Your task to perform on an android device: open app "Facebook Lite" (install if not already installed) and go to login screen Image 0: 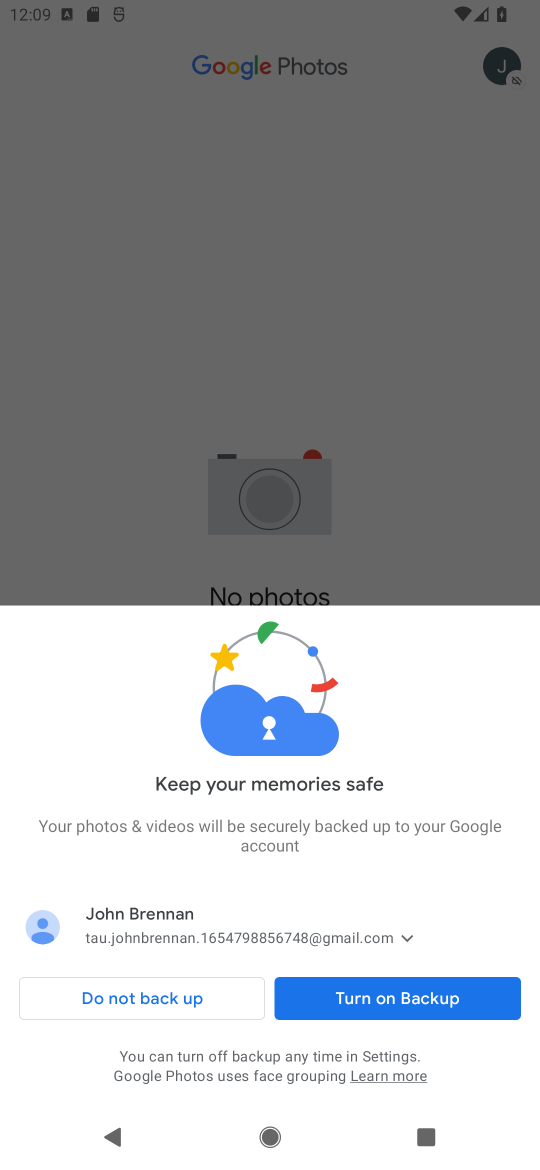
Step 0: press home button
Your task to perform on an android device: open app "Facebook Lite" (install if not already installed) and go to login screen Image 1: 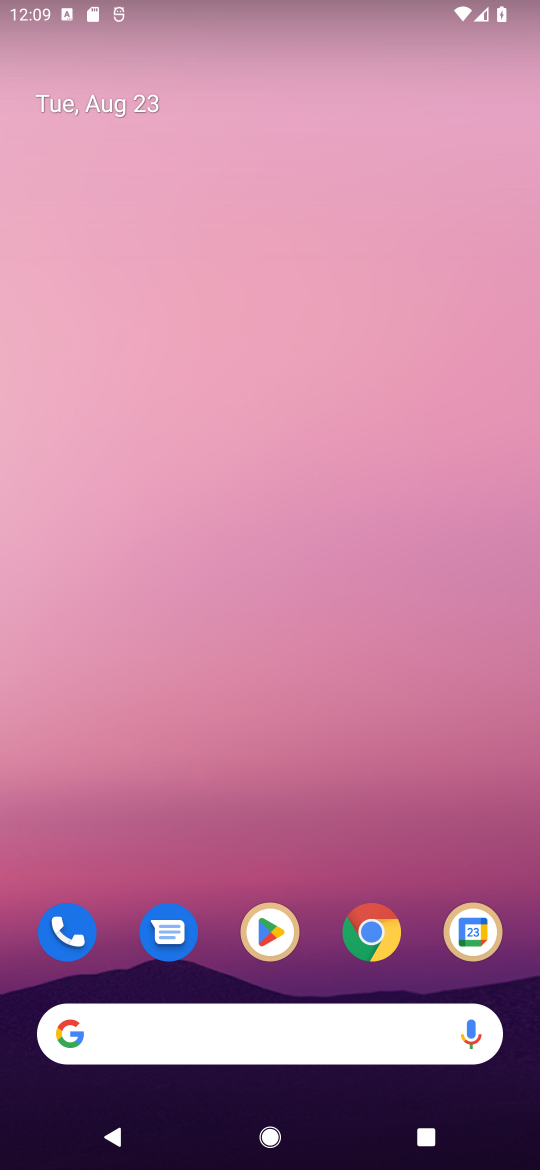
Step 1: click (272, 920)
Your task to perform on an android device: open app "Facebook Lite" (install if not already installed) and go to login screen Image 2: 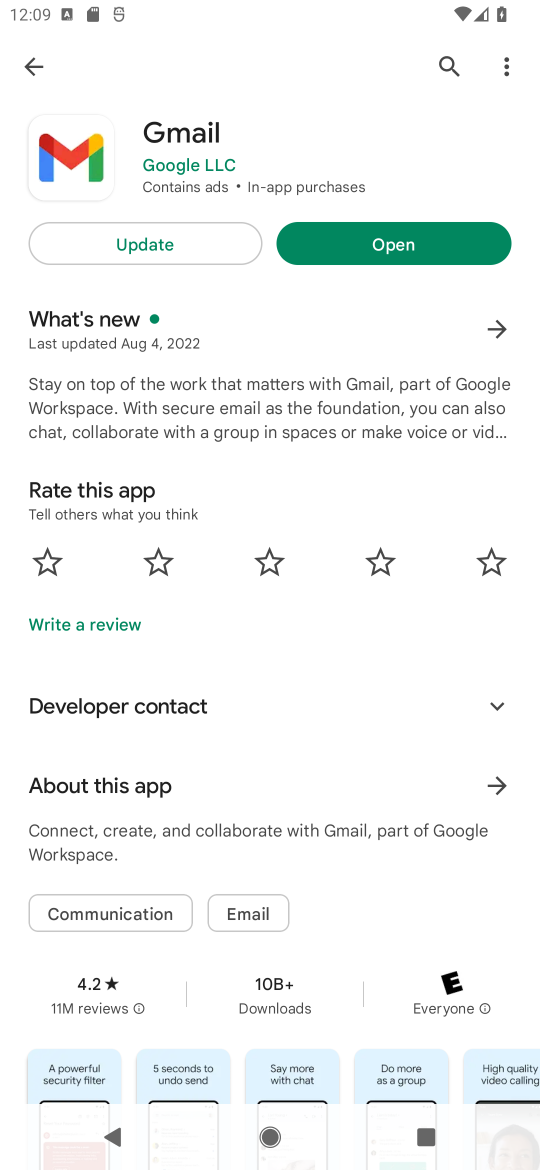
Step 2: click (444, 68)
Your task to perform on an android device: open app "Facebook Lite" (install if not already installed) and go to login screen Image 3: 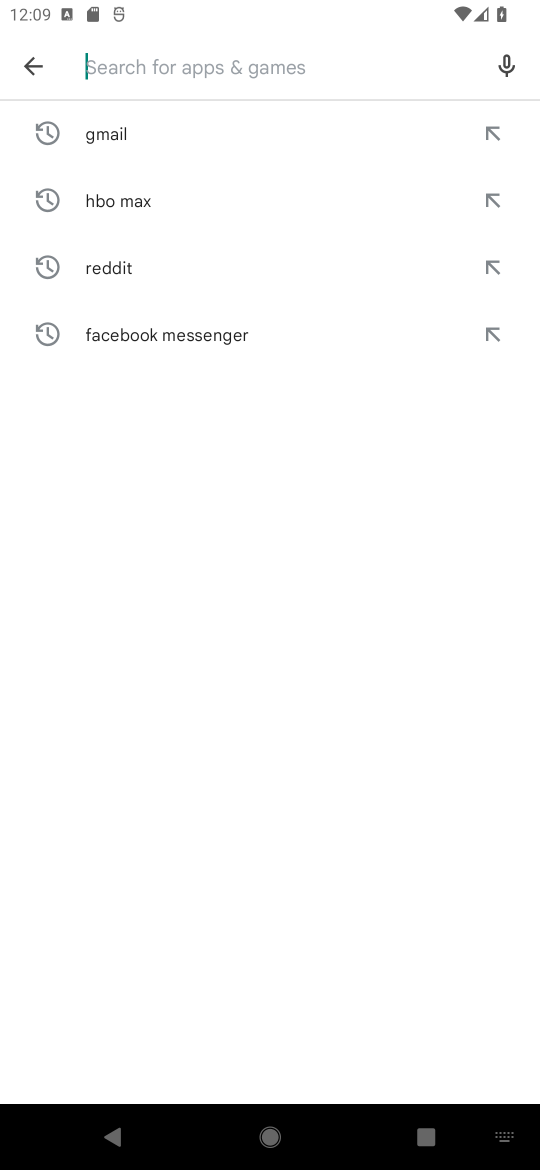
Step 3: click (214, 70)
Your task to perform on an android device: open app "Facebook Lite" (install if not already installed) and go to login screen Image 4: 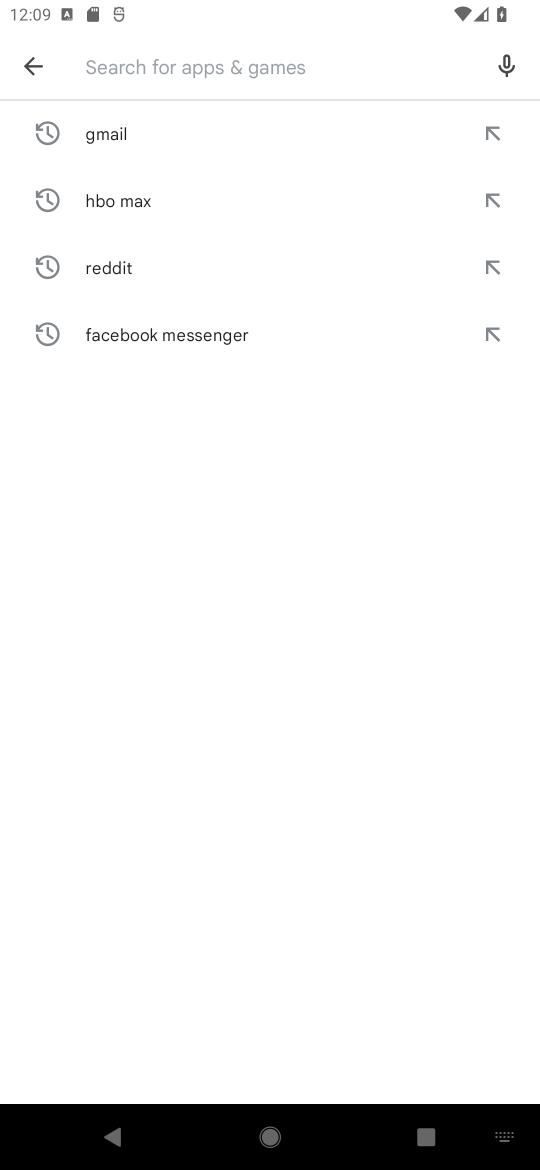
Step 4: type "Facebook Lite"
Your task to perform on an android device: open app "Facebook Lite" (install if not already installed) and go to login screen Image 5: 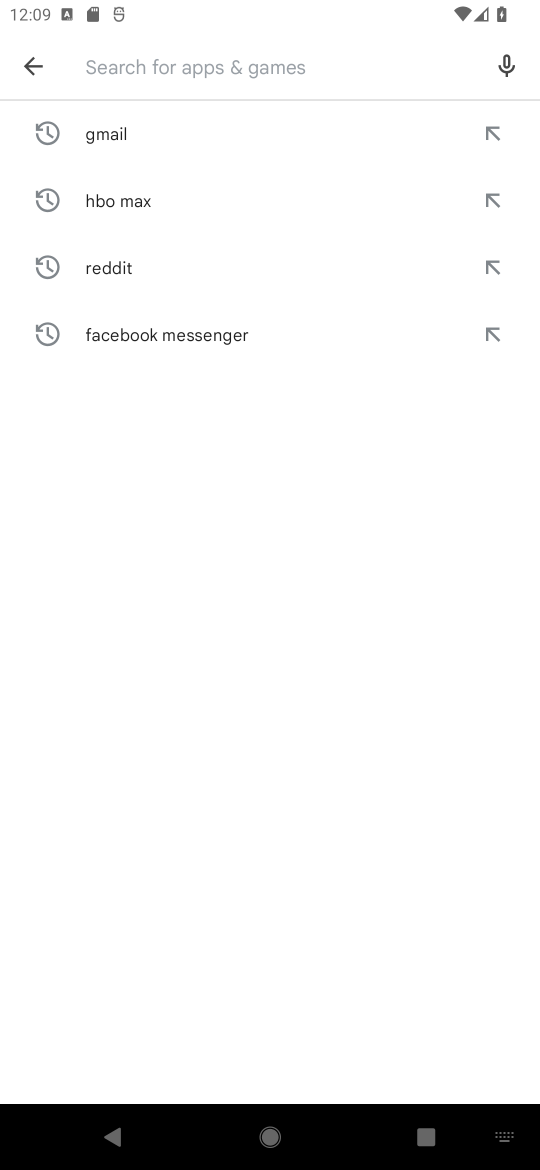
Step 5: click (246, 727)
Your task to perform on an android device: open app "Facebook Lite" (install if not already installed) and go to login screen Image 6: 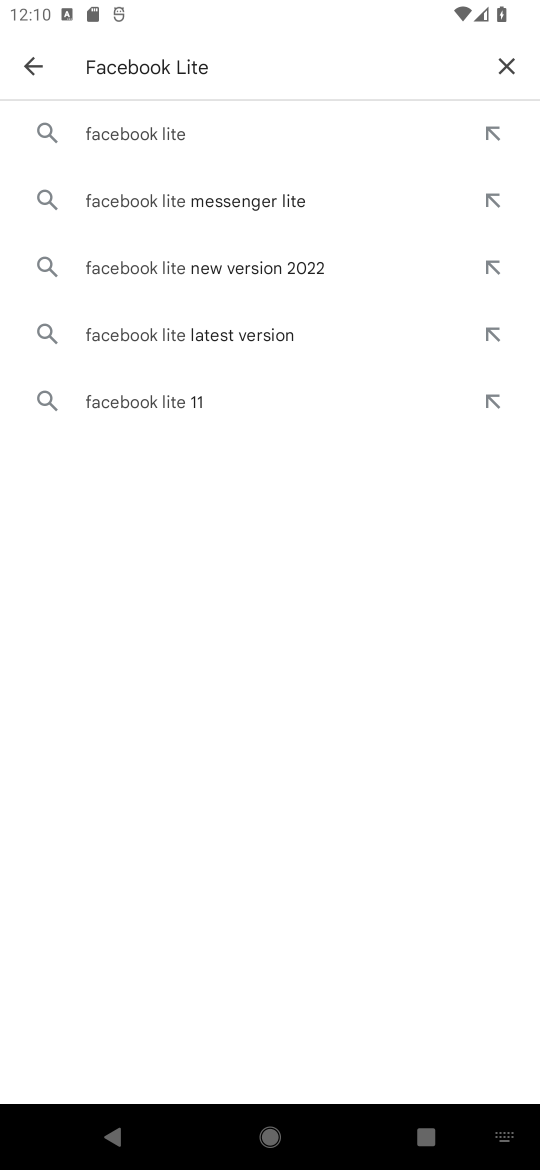
Step 6: click (161, 150)
Your task to perform on an android device: open app "Facebook Lite" (install if not already installed) and go to login screen Image 7: 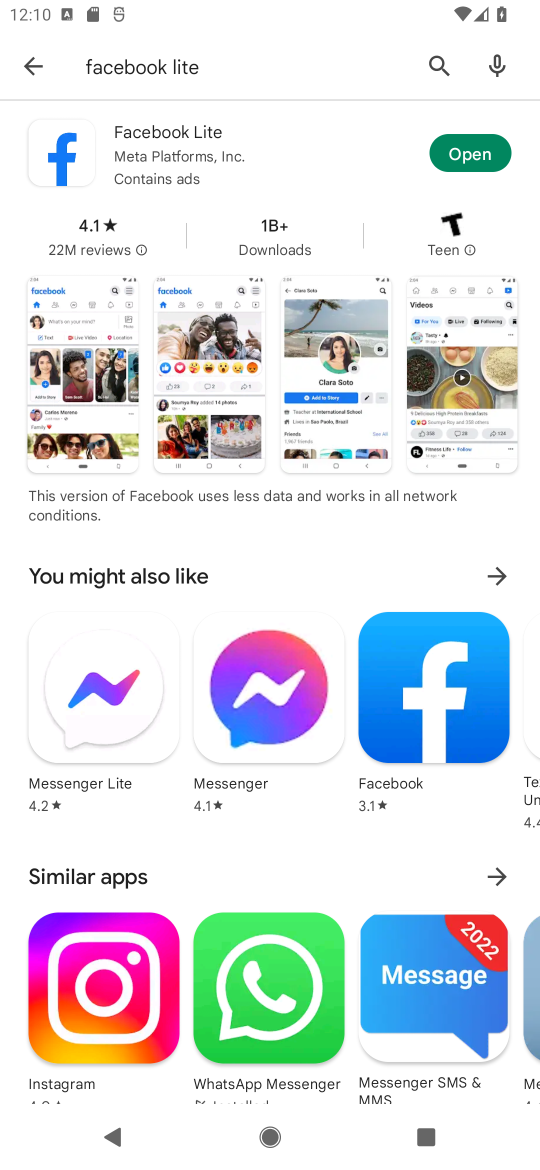
Step 7: click (156, 153)
Your task to perform on an android device: open app "Facebook Lite" (install if not already installed) and go to login screen Image 8: 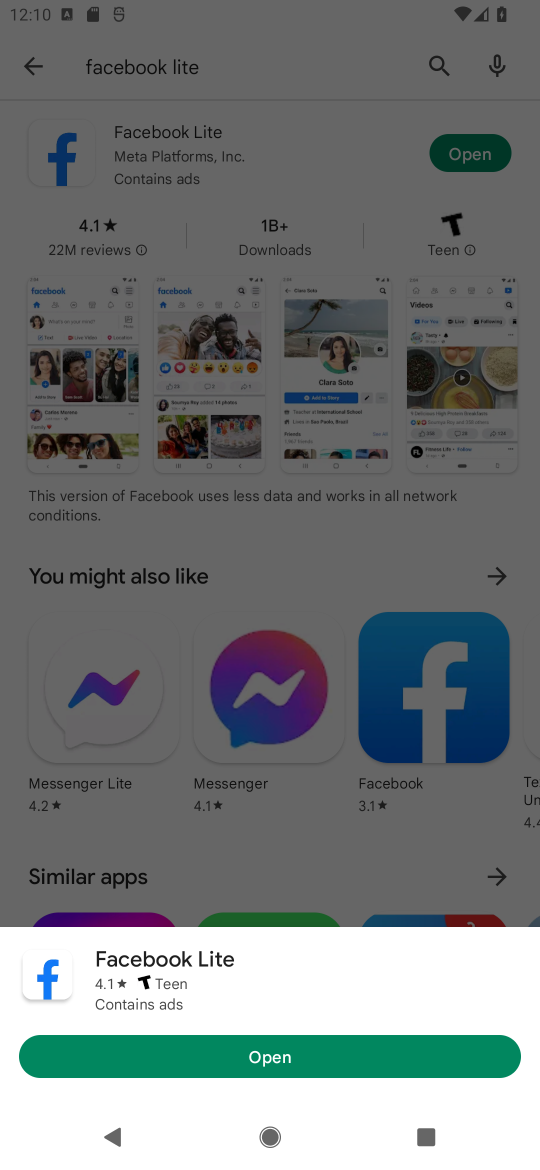
Step 8: click (149, 153)
Your task to perform on an android device: open app "Facebook Lite" (install if not already installed) and go to login screen Image 9: 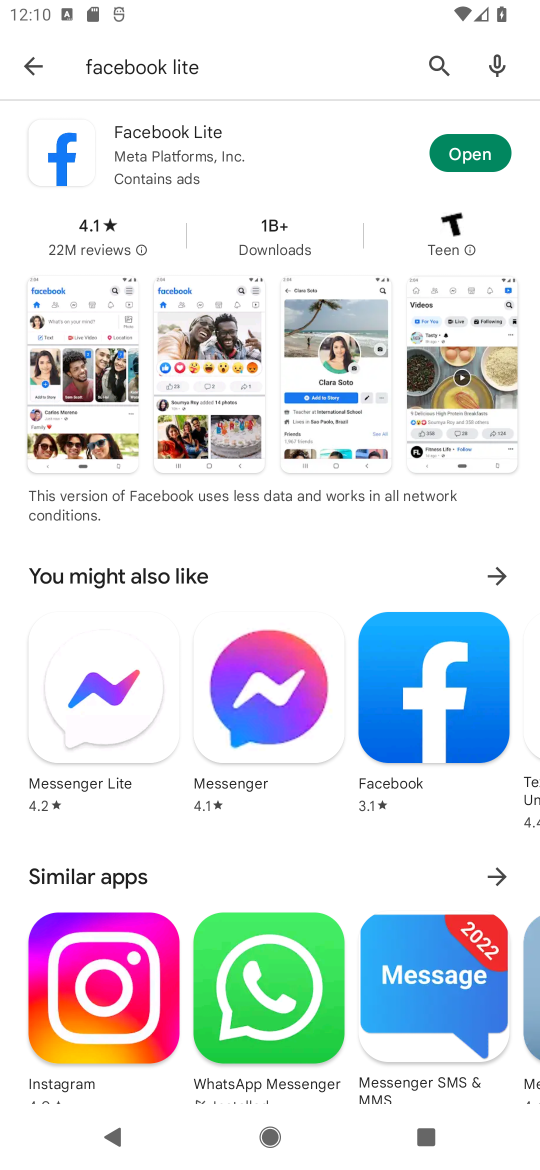
Step 9: click (473, 139)
Your task to perform on an android device: open app "Facebook Lite" (install if not already installed) and go to login screen Image 10: 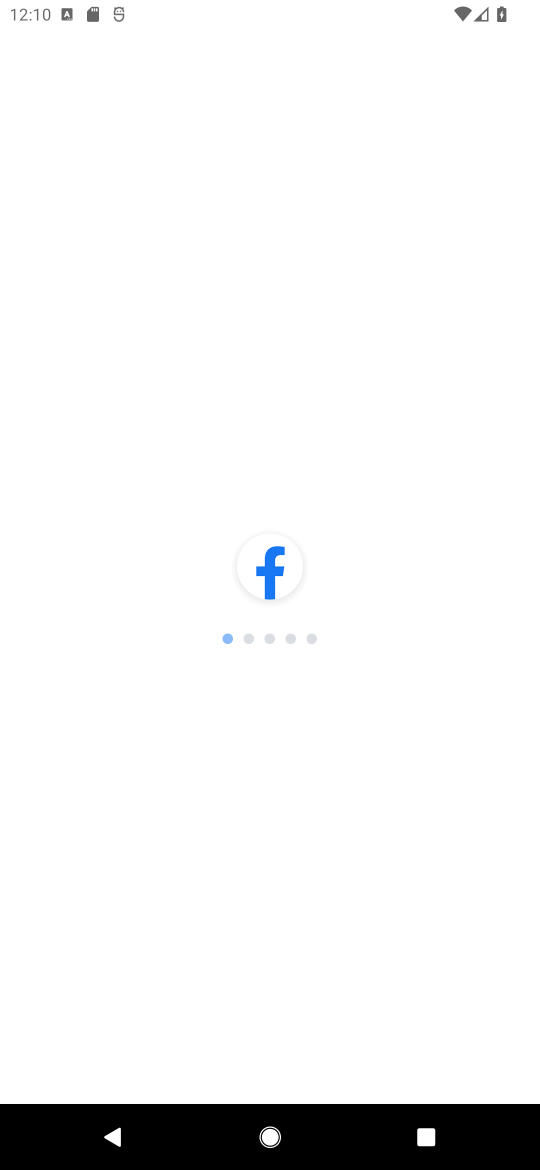
Step 10: click (386, 821)
Your task to perform on an android device: open app "Facebook Lite" (install if not already installed) and go to login screen Image 11: 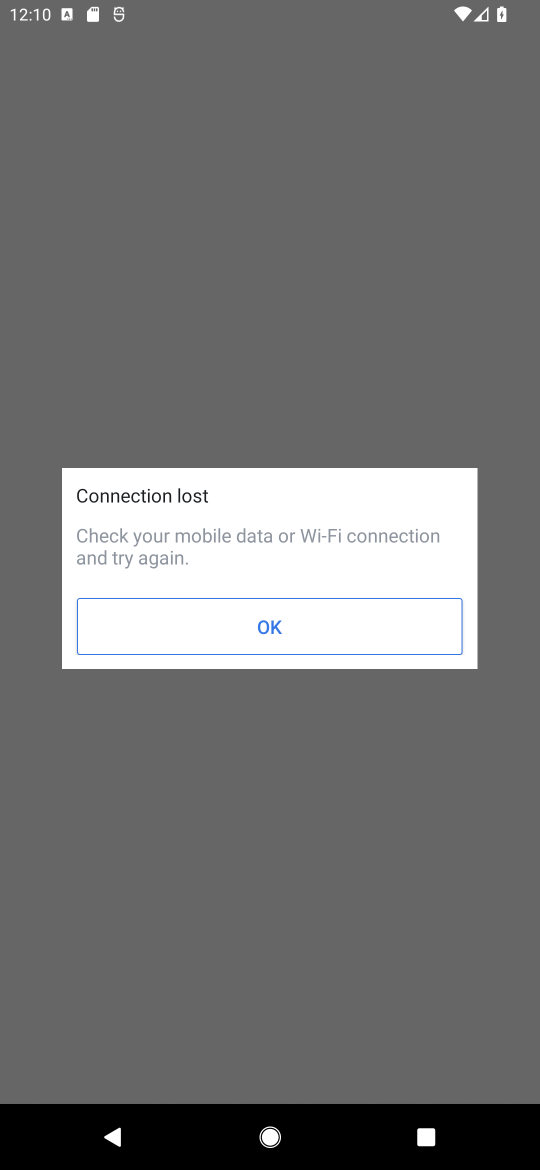
Step 11: task complete